Your task to perform on an android device: Open calendar and show me the third week of next month Image 0: 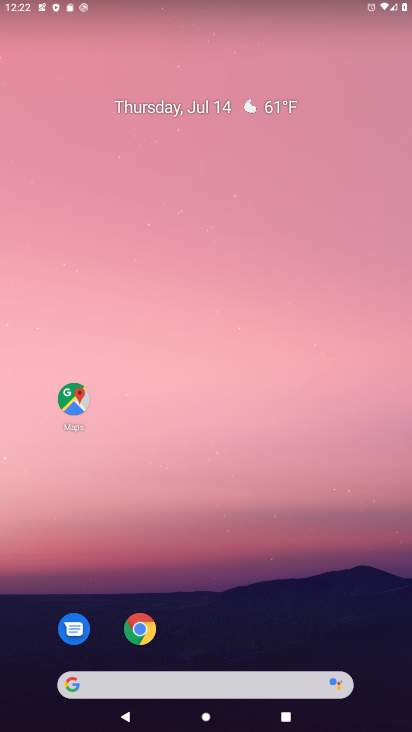
Step 0: press home button
Your task to perform on an android device: Open calendar and show me the third week of next month Image 1: 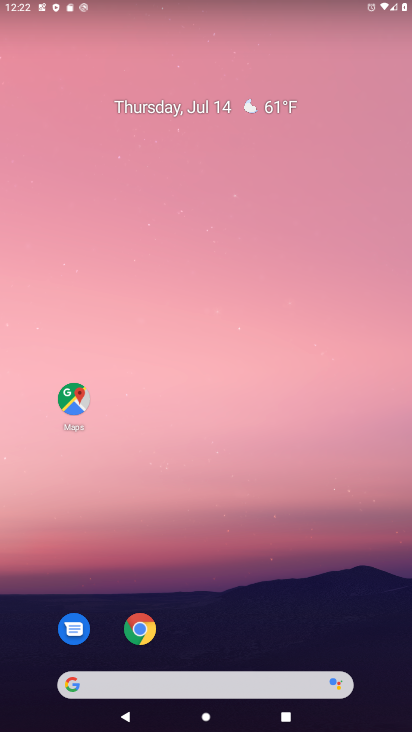
Step 1: drag from (227, 578) to (200, 129)
Your task to perform on an android device: Open calendar and show me the third week of next month Image 2: 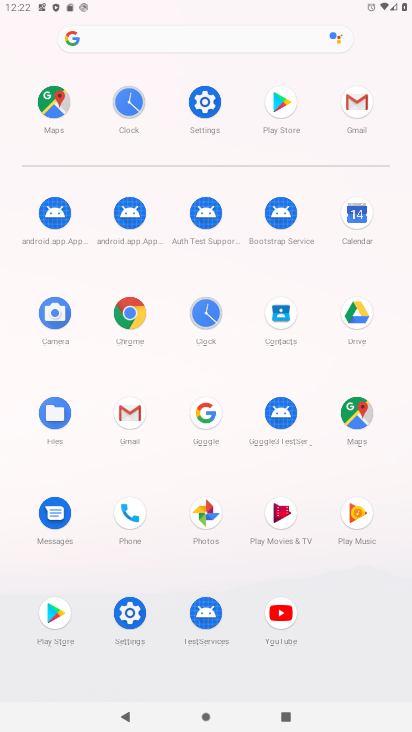
Step 2: click (356, 220)
Your task to perform on an android device: Open calendar and show me the third week of next month Image 3: 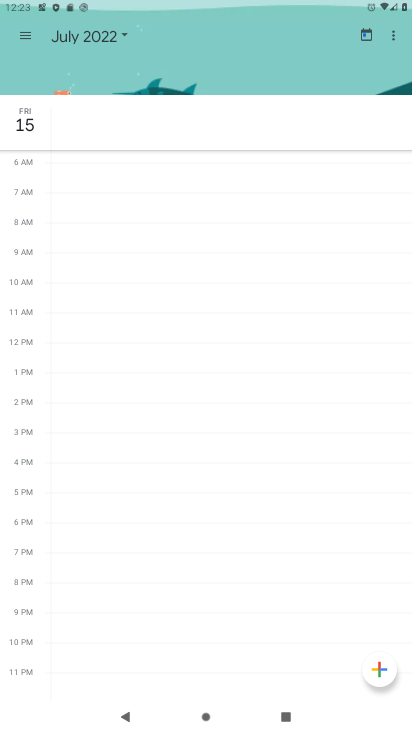
Step 3: click (23, 34)
Your task to perform on an android device: Open calendar and show me the third week of next month Image 4: 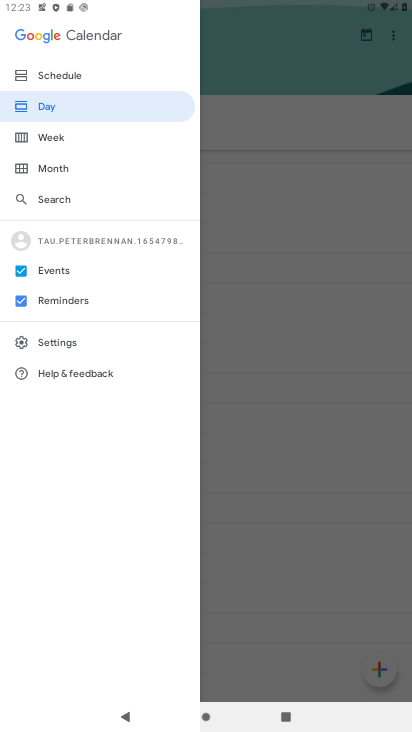
Step 4: click (53, 136)
Your task to perform on an android device: Open calendar and show me the third week of next month Image 5: 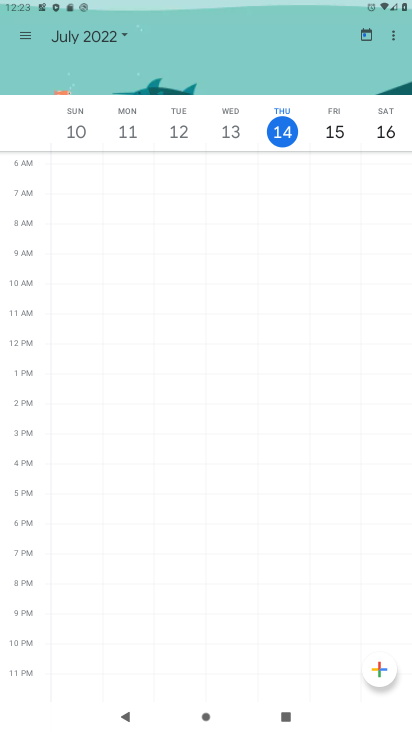
Step 5: click (126, 33)
Your task to perform on an android device: Open calendar and show me the third week of next month Image 6: 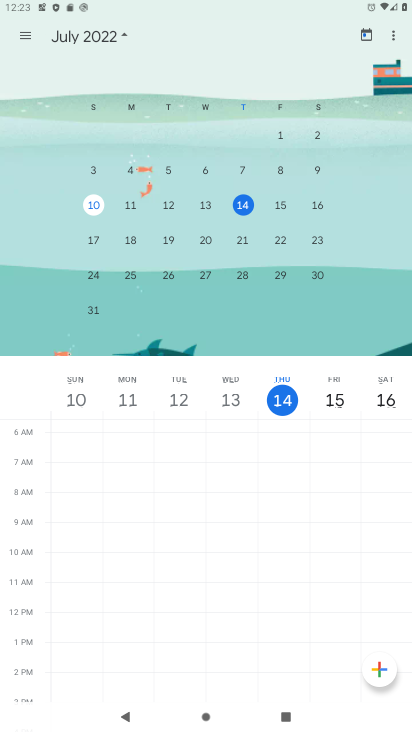
Step 6: drag from (353, 200) to (92, 157)
Your task to perform on an android device: Open calendar and show me the third week of next month Image 7: 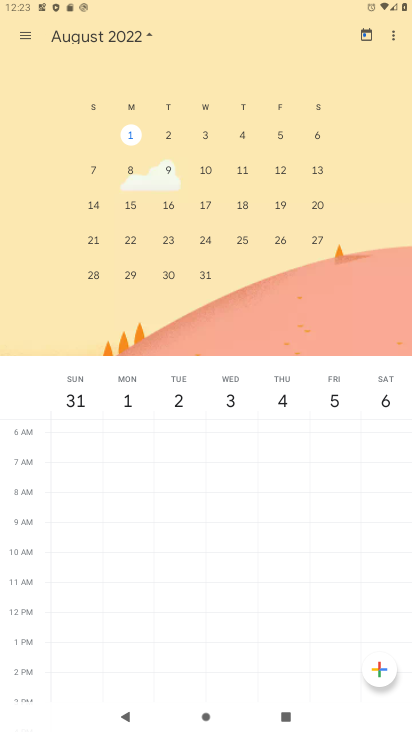
Step 7: click (158, 204)
Your task to perform on an android device: Open calendar and show me the third week of next month Image 8: 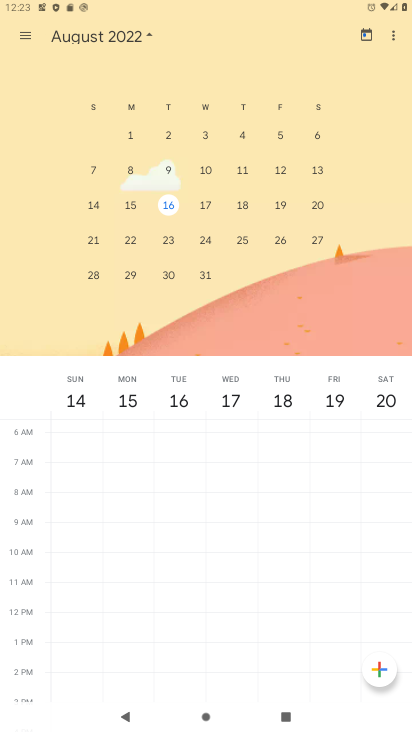
Step 8: task complete